Your task to perform on an android device: turn on bluetooth scan Image 0: 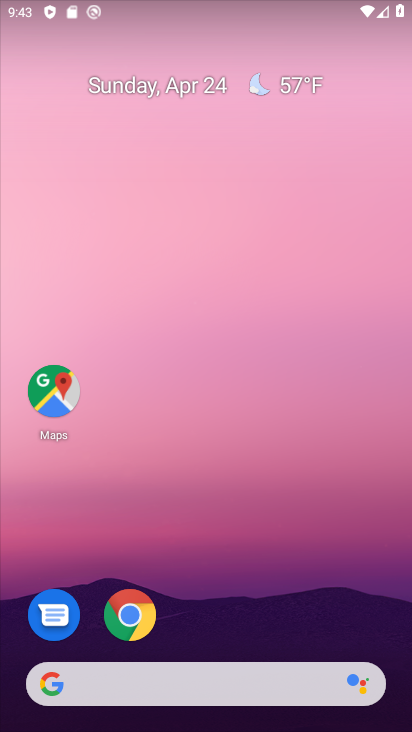
Step 0: drag from (384, 643) to (275, 77)
Your task to perform on an android device: turn on bluetooth scan Image 1: 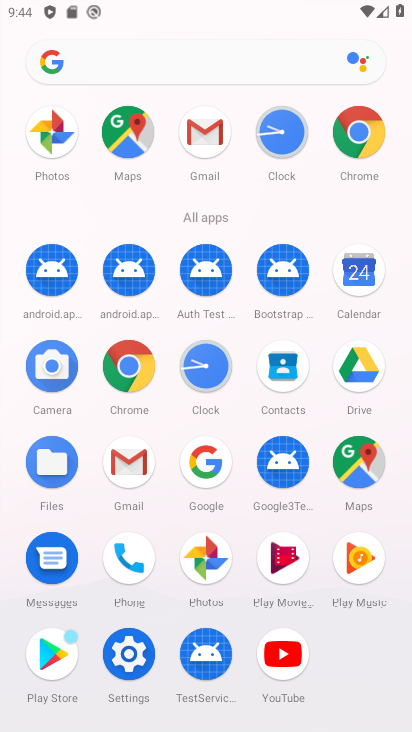
Step 1: click (126, 656)
Your task to perform on an android device: turn on bluetooth scan Image 2: 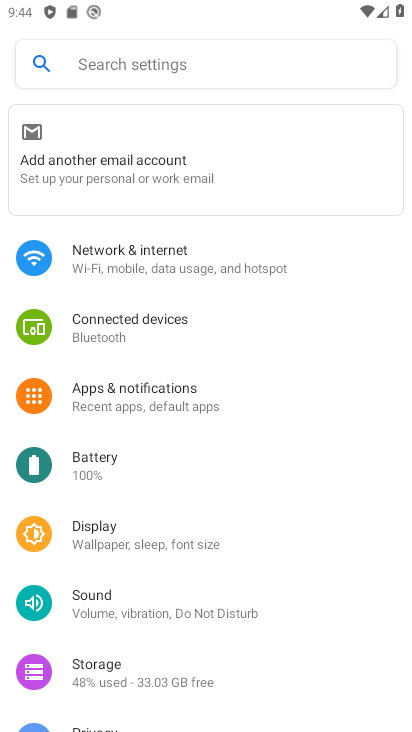
Step 2: drag from (313, 633) to (271, 327)
Your task to perform on an android device: turn on bluetooth scan Image 3: 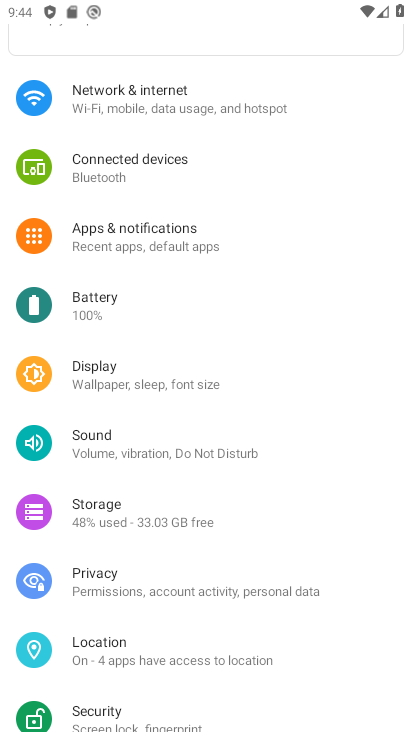
Step 3: click (99, 649)
Your task to perform on an android device: turn on bluetooth scan Image 4: 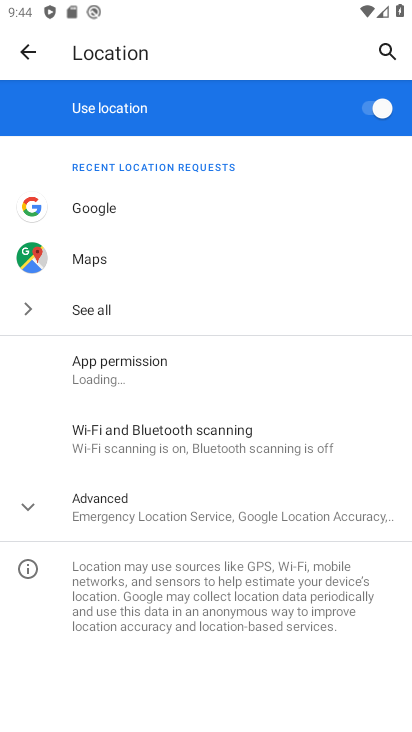
Step 4: click (123, 437)
Your task to perform on an android device: turn on bluetooth scan Image 5: 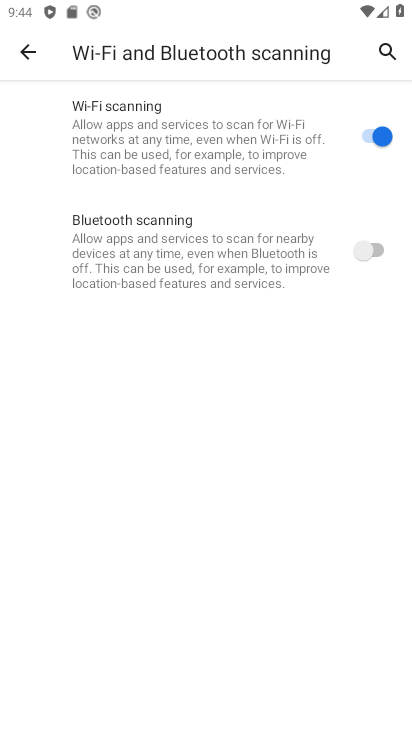
Step 5: click (380, 249)
Your task to perform on an android device: turn on bluetooth scan Image 6: 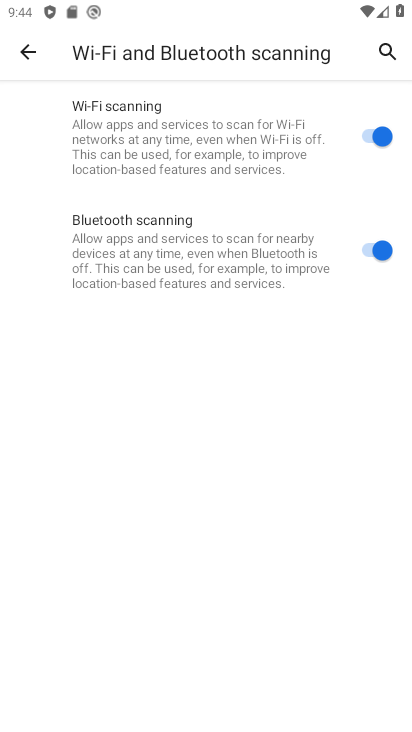
Step 6: task complete